Your task to perform on an android device: Open the Play Movies app and select the watchlist tab. Image 0: 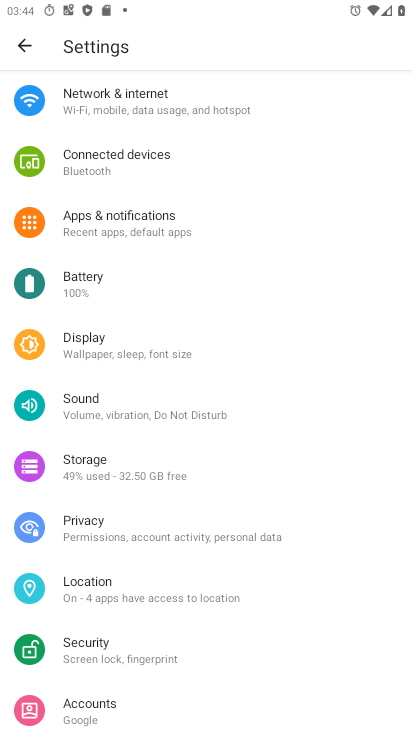
Step 0: press home button
Your task to perform on an android device: Open the Play Movies app and select the watchlist tab. Image 1: 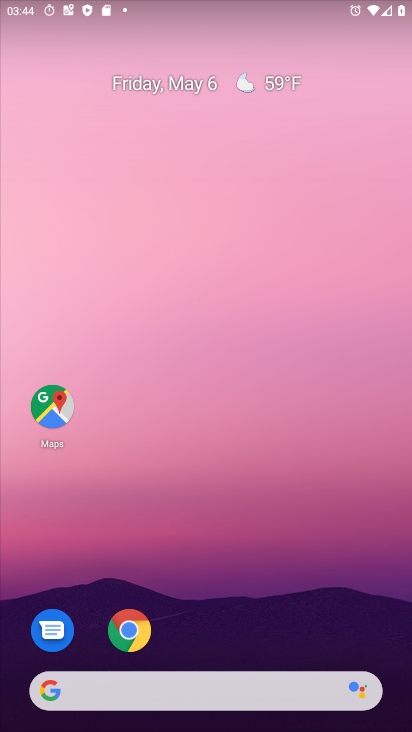
Step 1: drag from (189, 635) to (242, 196)
Your task to perform on an android device: Open the Play Movies app and select the watchlist tab. Image 2: 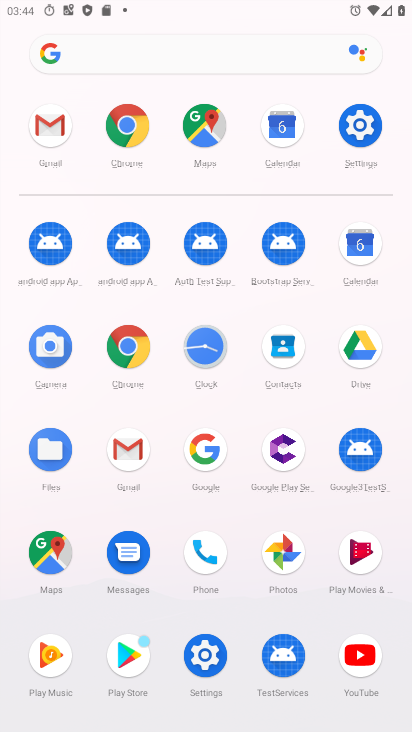
Step 2: click (350, 554)
Your task to perform on an android device: Open the Play Movies app and select the watchlist tab. Image 3: 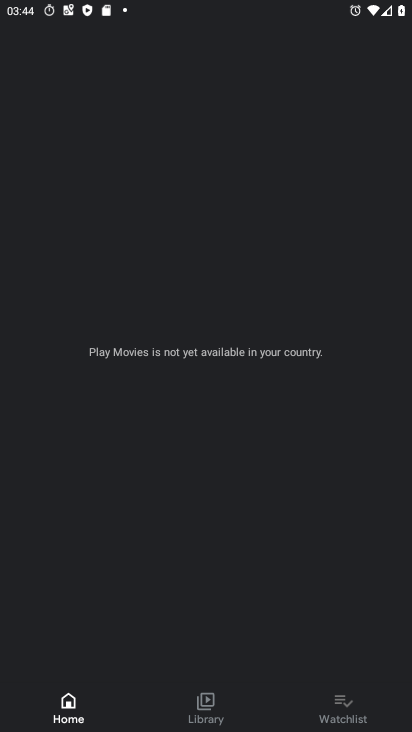
Step 3: click (336, 711)
Your task to perform on an android device: Open the Play Movies app and select the watchlist tab. Image 4: 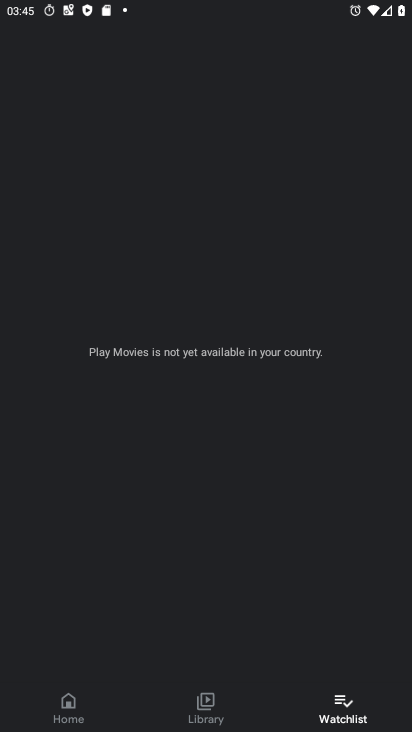
Step 4: click (341, 697)
Your task to perform on an android device: Open the Play Movies app and select the watchlist tab. Image 5: 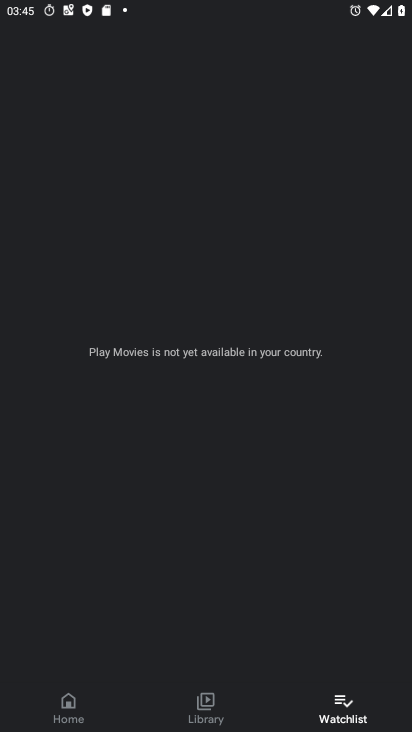
Step 5: task complete